Your task to perform on an android device: Set the phone to "Do not disturb". Image 0: 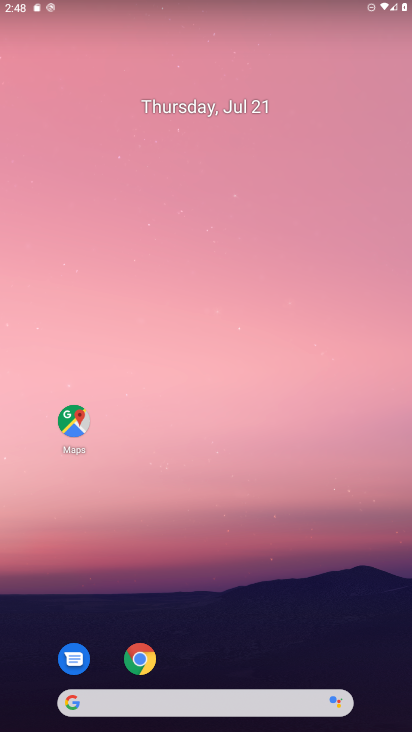
Step 0: press home button
Your task to perform on an android device: Set the phone to "Do not disturb". Image 1: 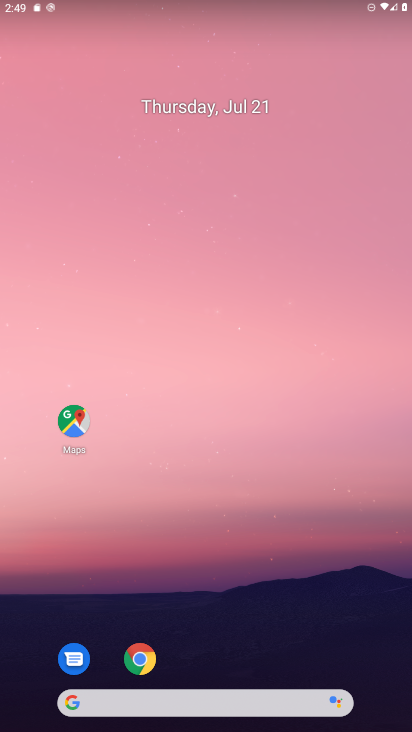
Step 1: task complete